Your task to perform on an android device: uninstall "LiveIn - Share Your Moment" Image 0: 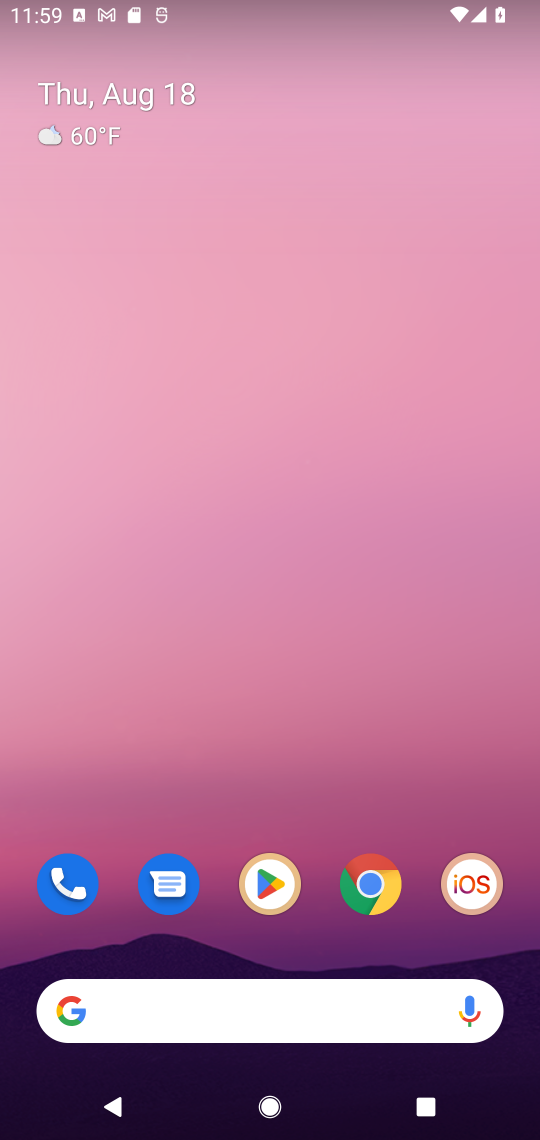
Step 0: drag from (175, 1009) to (340, 257)
Your task to perform on an android device: uninstall "LiveIn - Share Your Moment" Image 1: 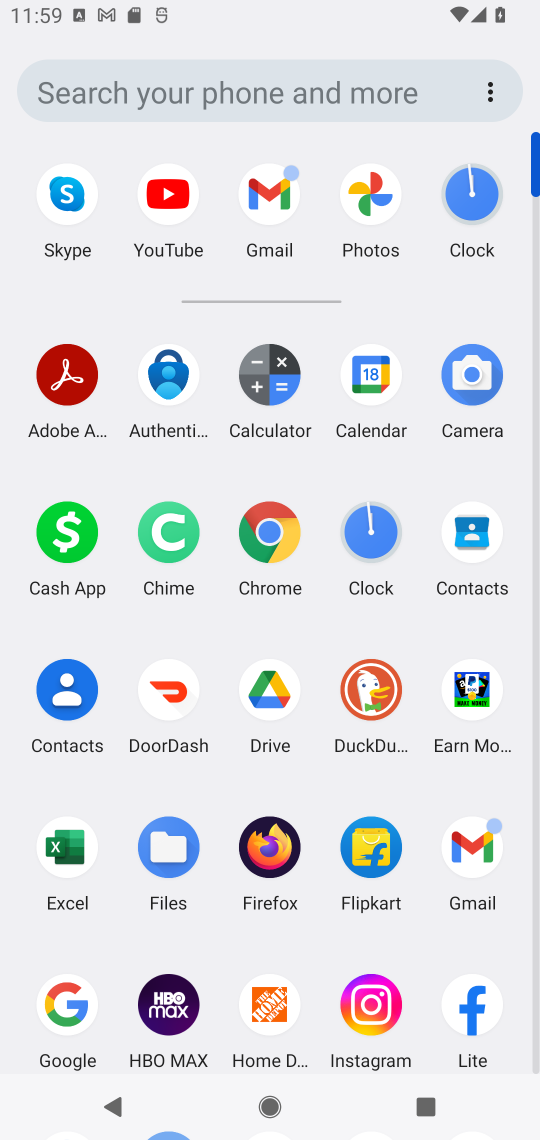
Step 1: drag from (223, 952) to (308, 295)
Your task to perform on an android device: uninstall "LiveIn - Share Your Moment" Image 2: 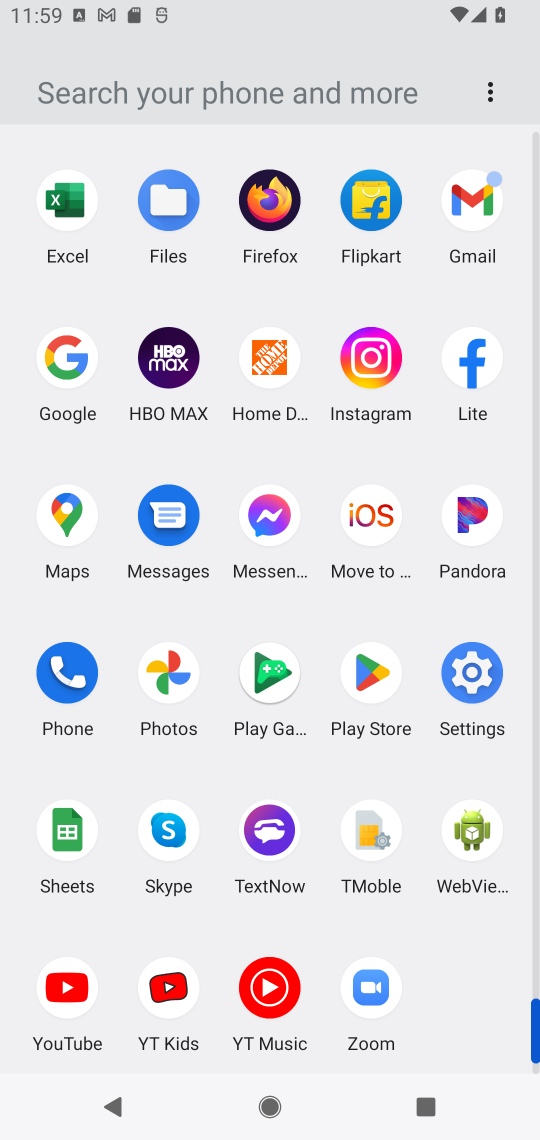
Step 2: click (376, 676)
Your task to perform on an android device: uninstall "LiveIn - Share Your Moment" Image 3: 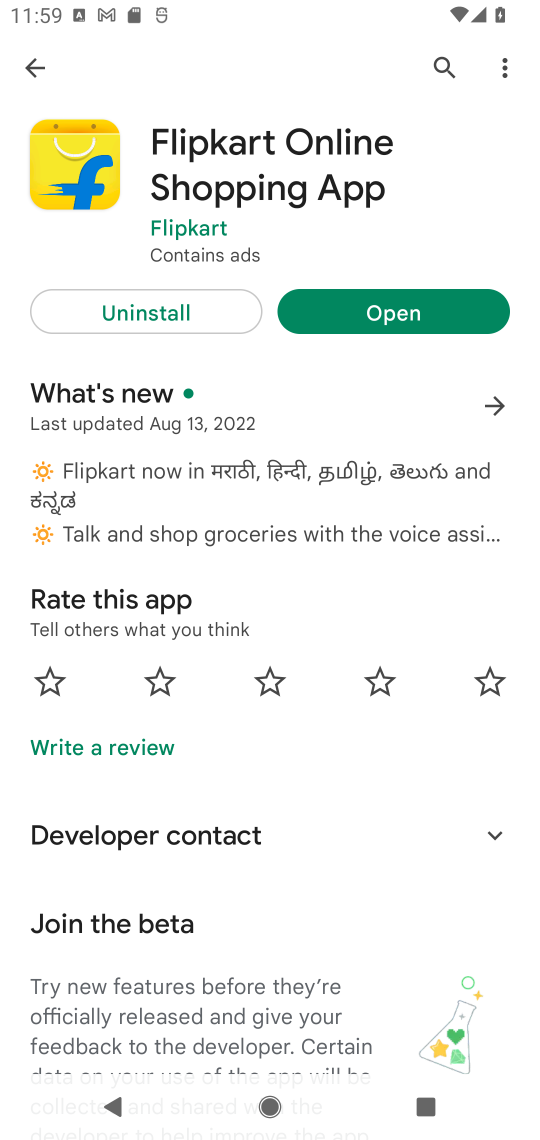
Step 3: press back button
Your task to perform on an android device: uninstall "LiveIn - Share Your Moment" Image 4: 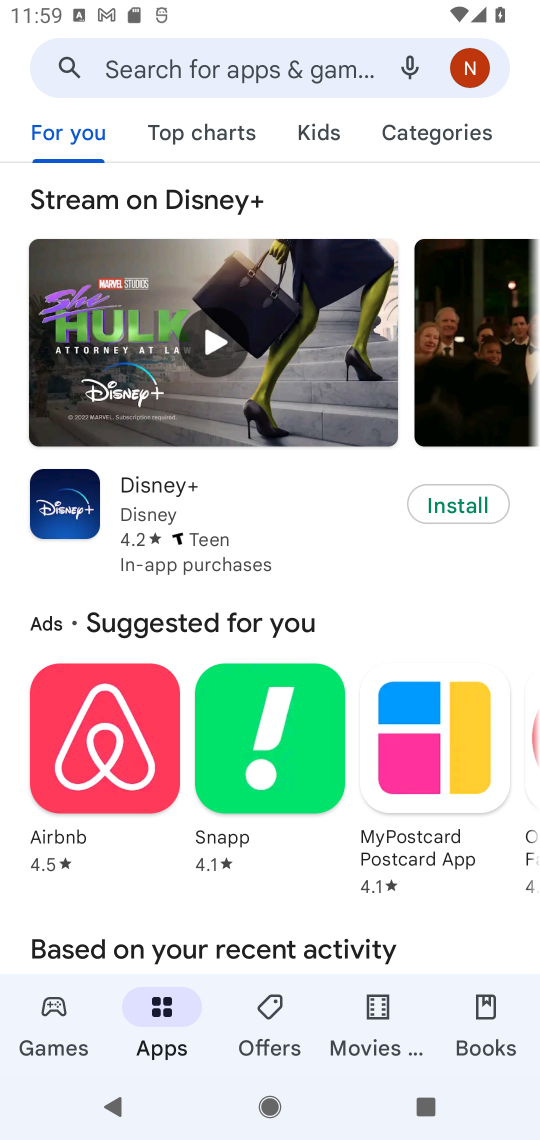
Step 4: click (164, 71)
Your task to perform on an android device: uninstall "LiveIn - Share Your Moment" Image 5: 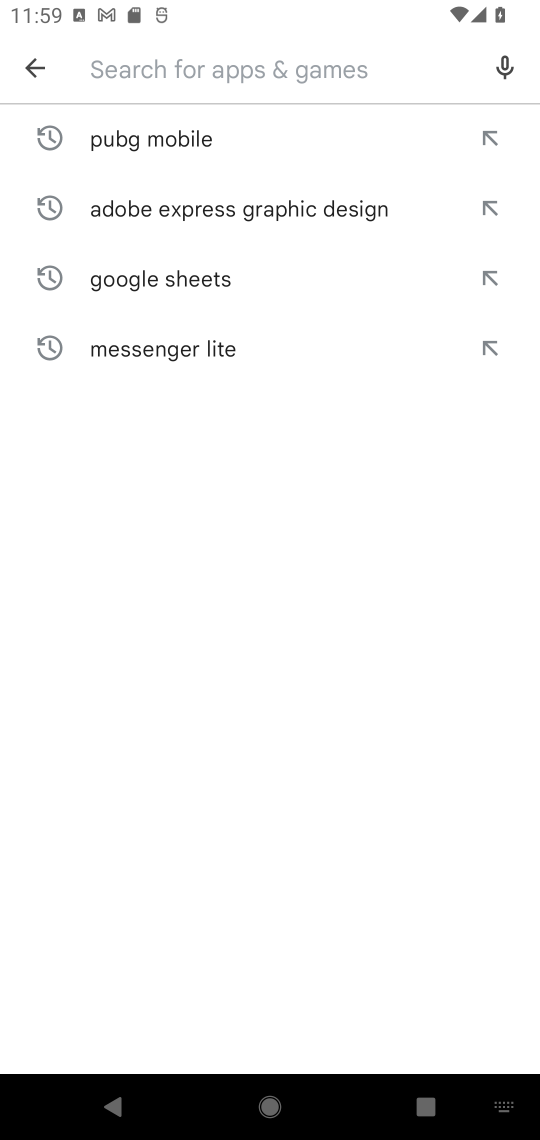
Step 5: type "LiveIn - Share Your Moment"
Your task to perform on an android device: uninstall "LiveIn - Share Your Moment" Image 6: 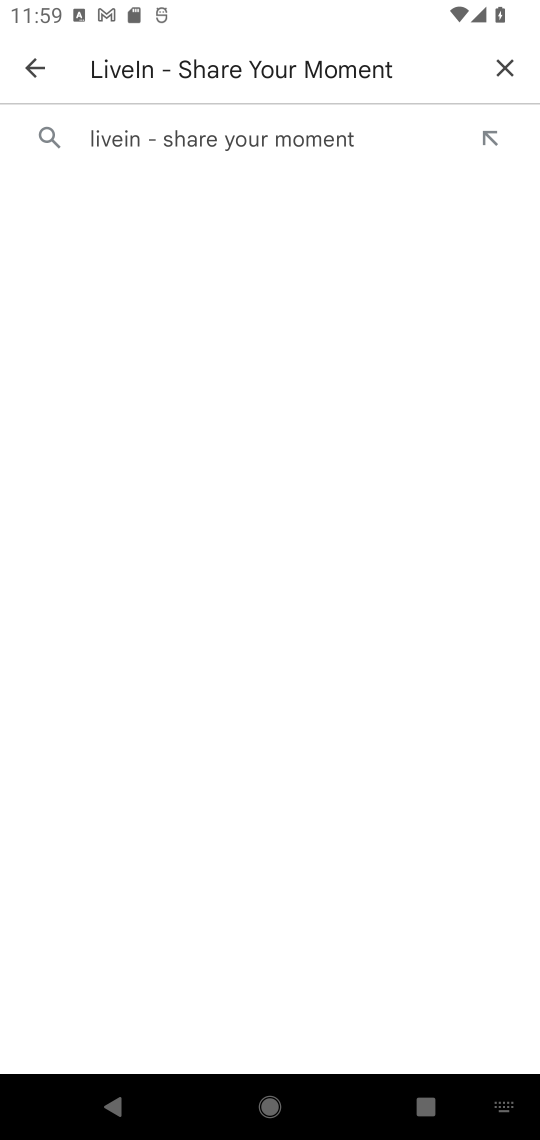
Step 6: click (175, 152)
Your task to perform on an android device: uninstall "LiveIn - Share Your Moment" Image 7: 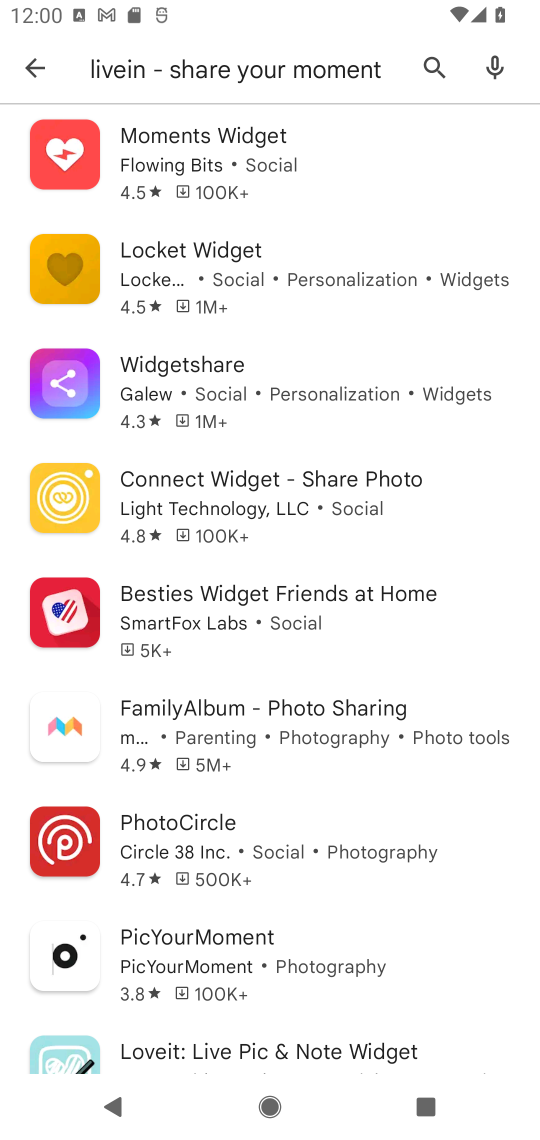
Step 7: task complete